Your task to perform on an android device: change alarm snooze length Image 0: 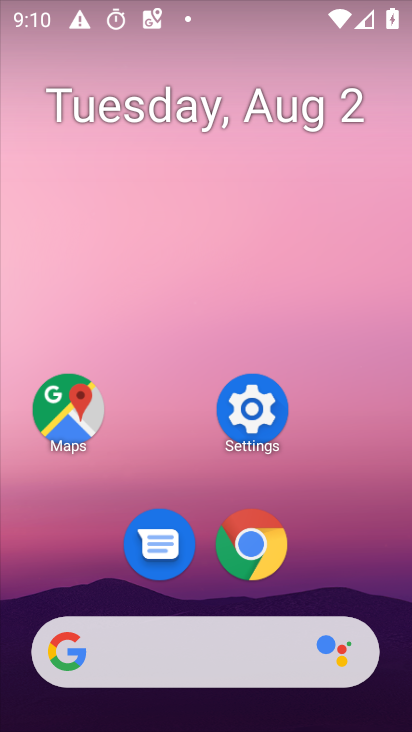
Step 0: drag from (216, 560) to (301, 121)
Your task to perform on an android device: change alarm snooze length Image 1: 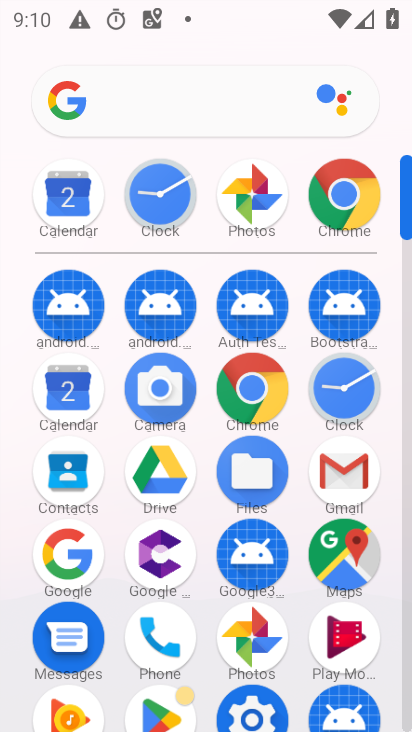
Step 1: click (167, 194)
Your task to perform on an android device: change alarm snooze length Image 2: 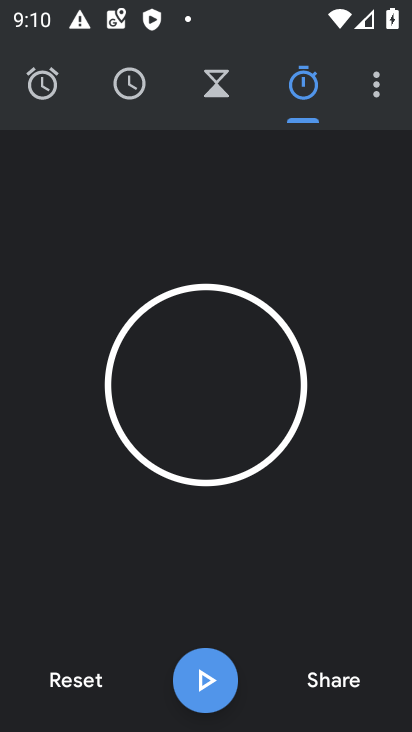
Step 2: click (373, 87)
Your task to perform on an android device: change alarm snooze length Image 3: 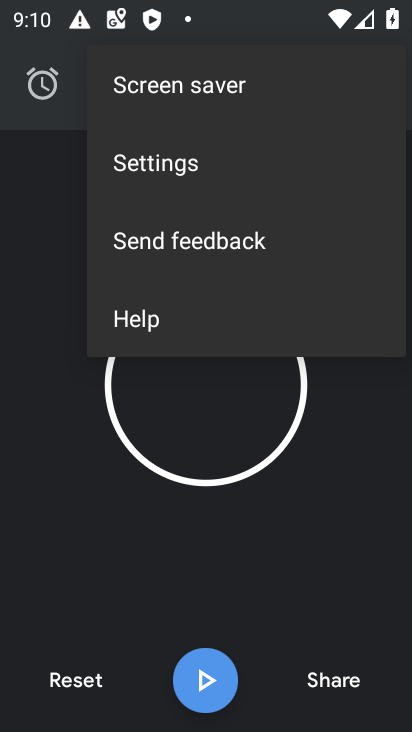
Step 3: click (189, 156)
Your task to perform on an android device: change alarm snooze length Image 4: 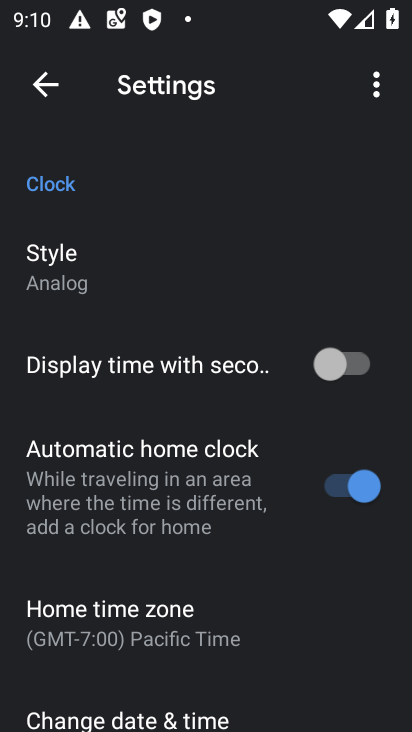
Step 4: drag from (248, 671) to (369, 171)
Your task to perform on an android device: change alarm snooze length Image 5: 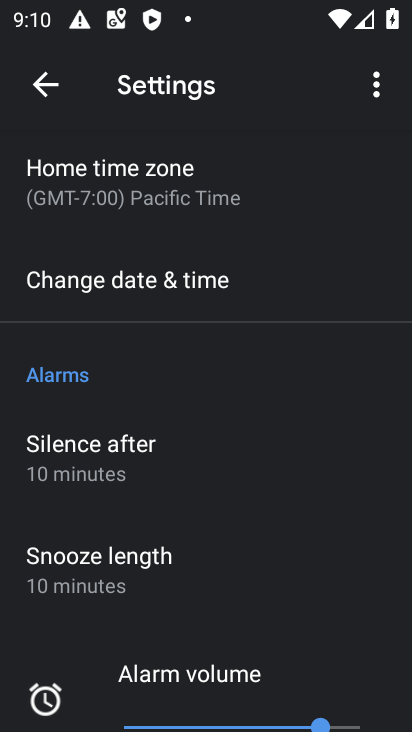
Step 5: click (109, 567)
Your task to perform on an android device: change alarm snooze length Image 6: 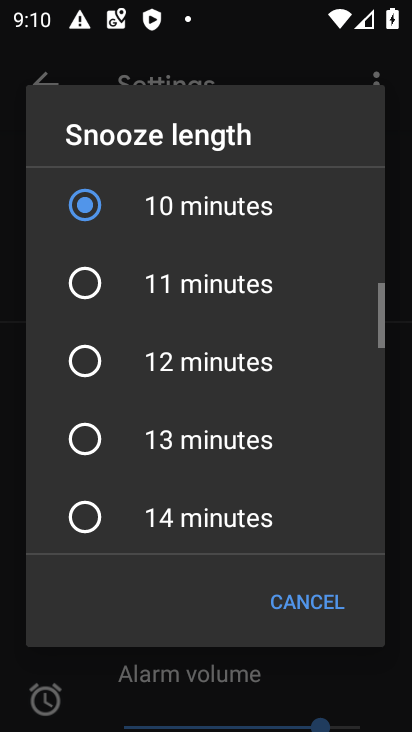
Step 6: drag from (138, 462) to (229, 229)
Your task to perform on an android device: change alarm snooze length Image 7: 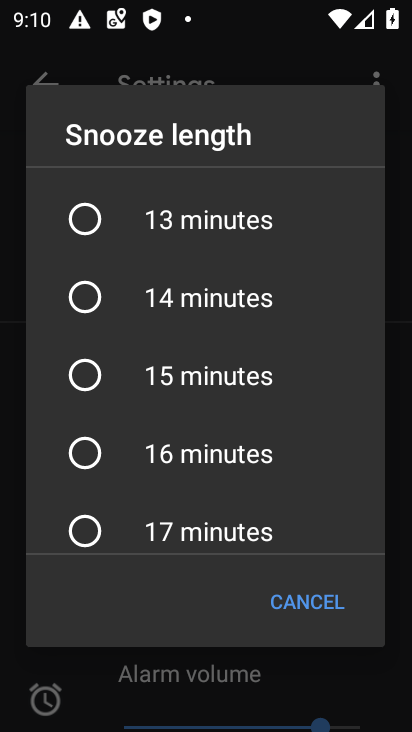
Step 7: click (92, 372)
Your task to perform on an android device: change alarm snooze length Image 8: 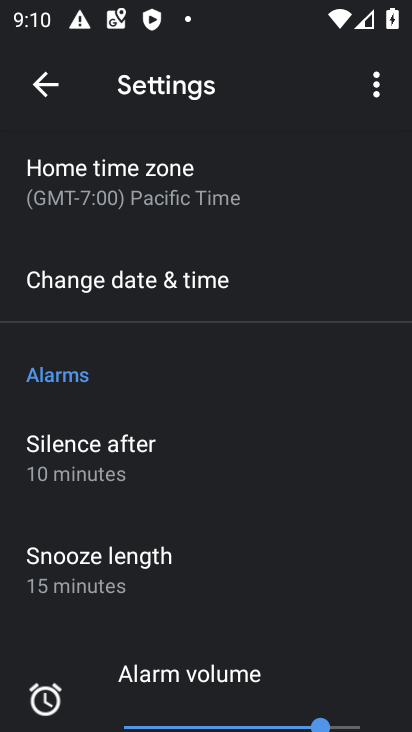
Step 8: task complete